Your task to perform on an android device: Show me productivity apps on the Play Store Image 0: 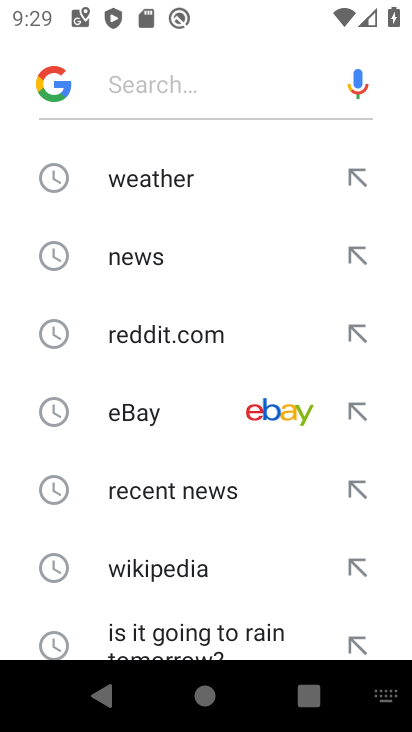
Step 0: press home button
Your task to perform on an android device: Show me productivity apps on the Play Store Image 1: 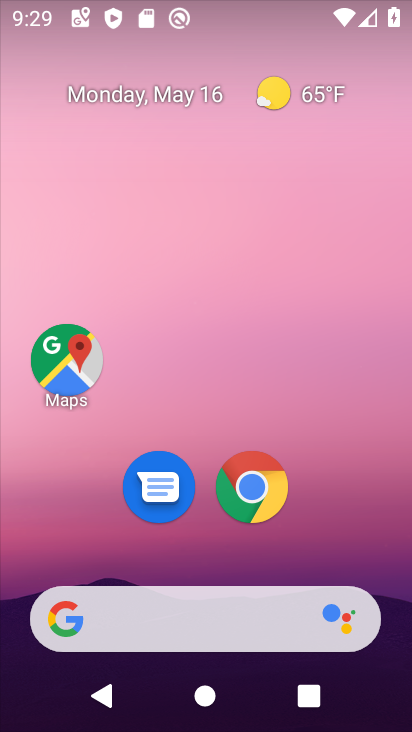
Step 1: drag from (372, 537) to (365, 126)
Your task to perform on an android device: Show me productivity apps on the Play Store Image 2: 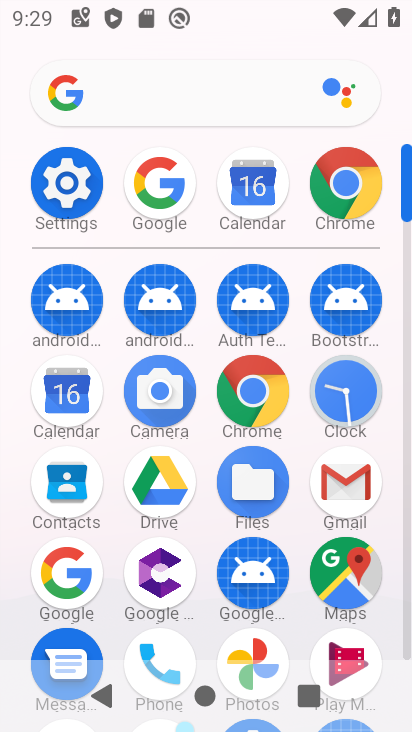
Step 2: drag from (209, 519) to (202, 275)
Your task to perform on an android device: Show me productivity apps on the Play Store Image 3: 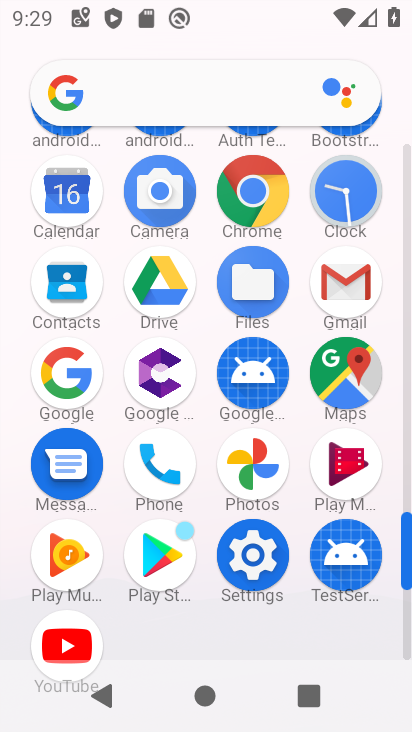
Step 3: click (168, 554)
Your task to perform on an android device: Show me productivity apps on the Play Store Image 4: 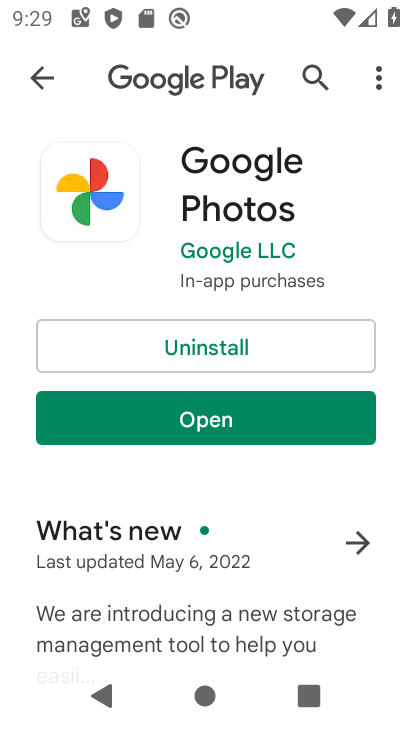
Step 4: click (38, 80)
Your task to perform on an android device: Show me productivity apps on the Play Store Image 5: 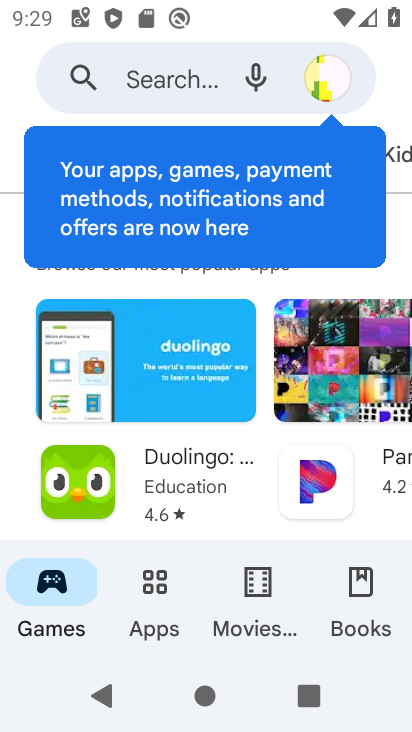
Step 5: click (173, 605)
Your task to perform on an android device: Show me productivity apps on the Play Store Image 6: 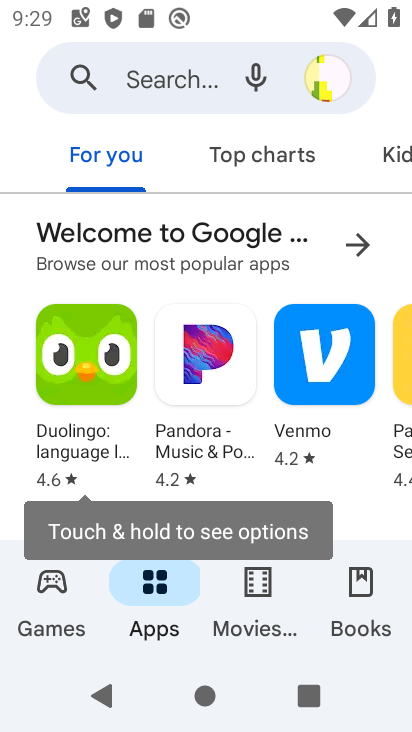
Step 6: click (172, 74)
Your task to perform on an android device: Show me productivity apps on the Play Store Image 7: 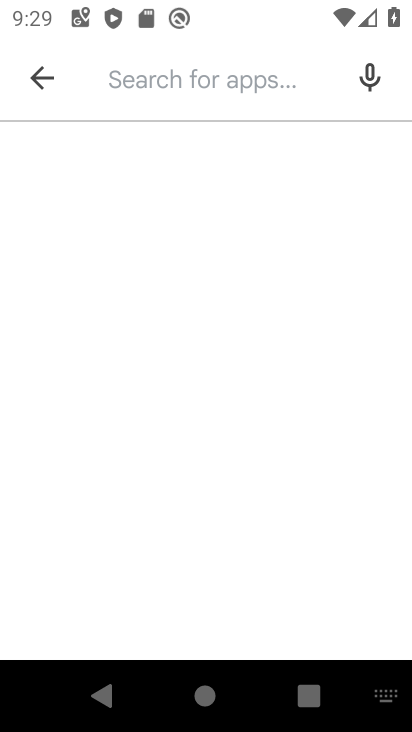
Step 7: type "productivity"
Your task to perform on an android device: Show me productivity apps on the Play Store Image 8: 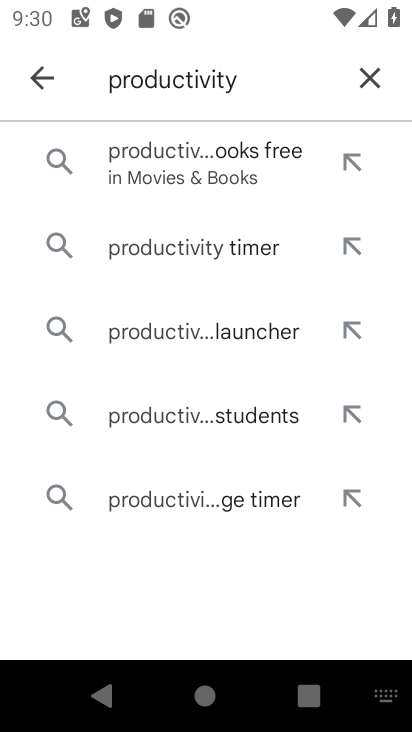
Step 8: task complete